Your task to perform on an android device: Go to Yahoo.com Image 0: 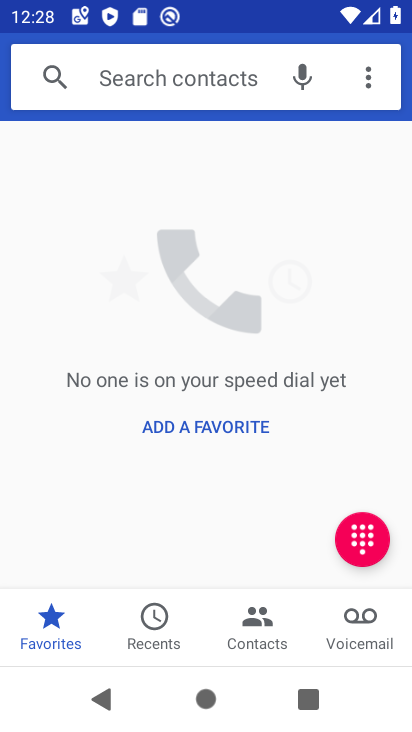
Step 0: press home button
Your task to perform on an android device: Go to Yahoo.com Image 1: 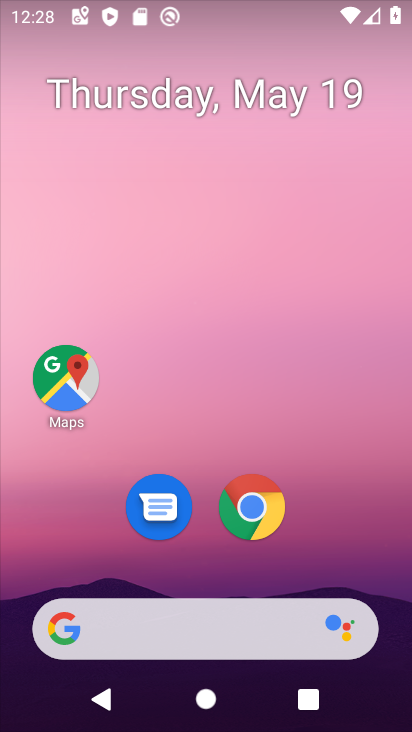
Step 1: click (269, 503)
Your task to perform on an android device: Go to Yahoo.com Image 2: 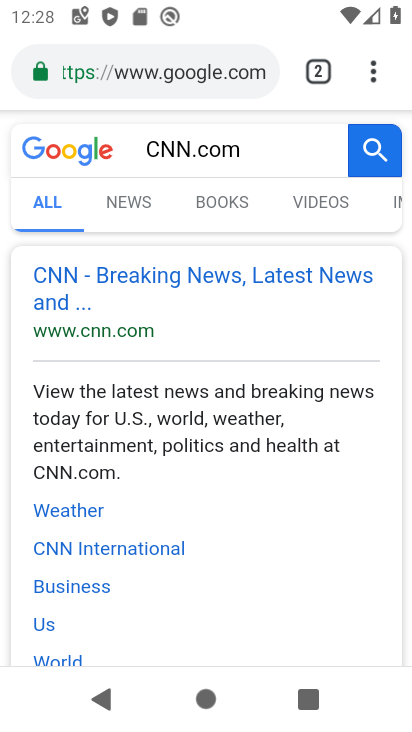
Step 2: click (171, 76)
Your task to perform on an android device: Go to Yahoo.com Image 3: 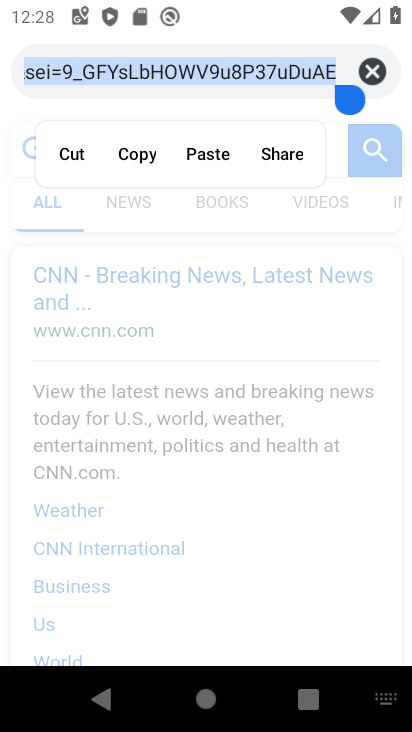
Step 3: type "Yahoo.com"
Your task to perform on an android device: Go to Yahoo.com Image 4: 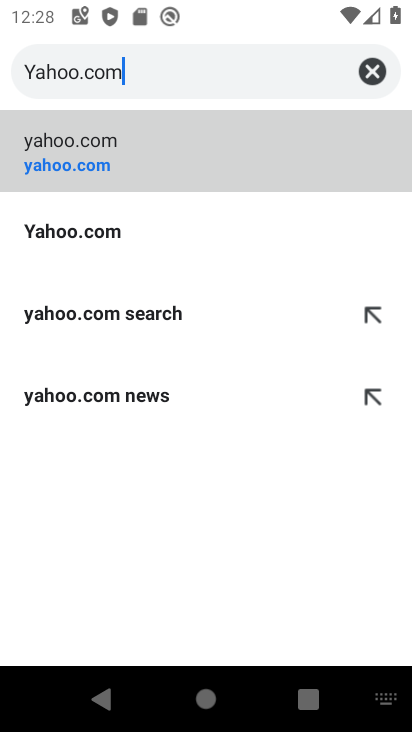
Step 4: click (84, 164)
Your task to perform on an android device: Go to Yahoo.com Image 5: 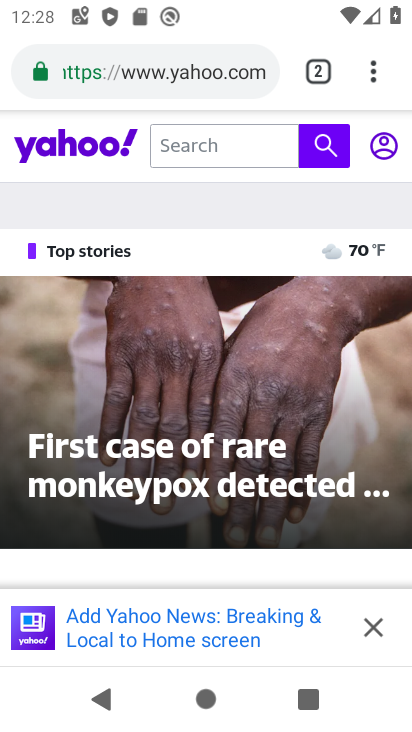
Step 5: task complete